Your task to perform on an android device: toggle improve location accuracy Image 0: 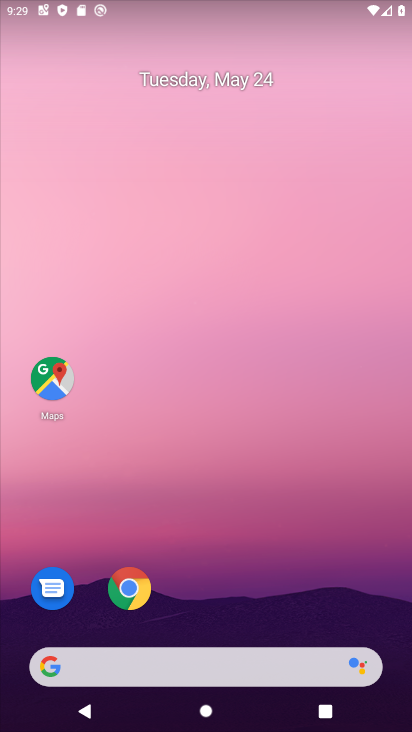
Step 0: drag from (257, 564) to (153, 15)
Your task to perform on an android device: toggle improve location accuracy Image 1: 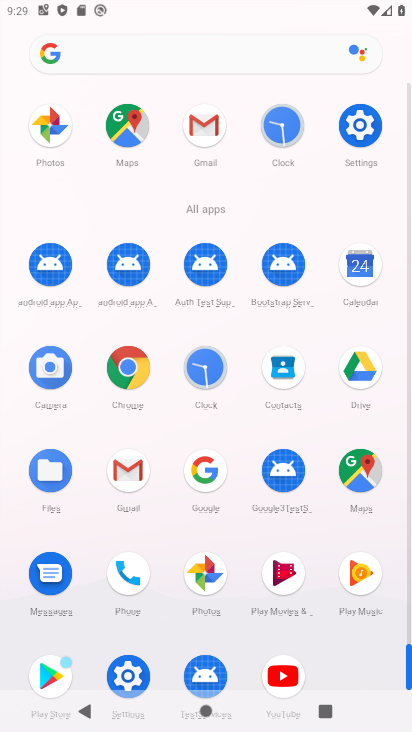
Step 1: drag from (13, 572) to (11, 227)
Your task to perform on an android device: toggle improve location accuracy Image 2: 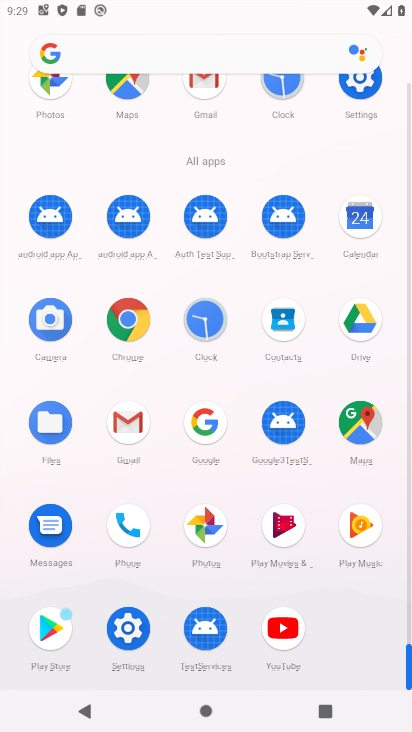
Step 2: click (127, 626)
Your task to perform on an android device: toggle improve location accuracy Image 3: 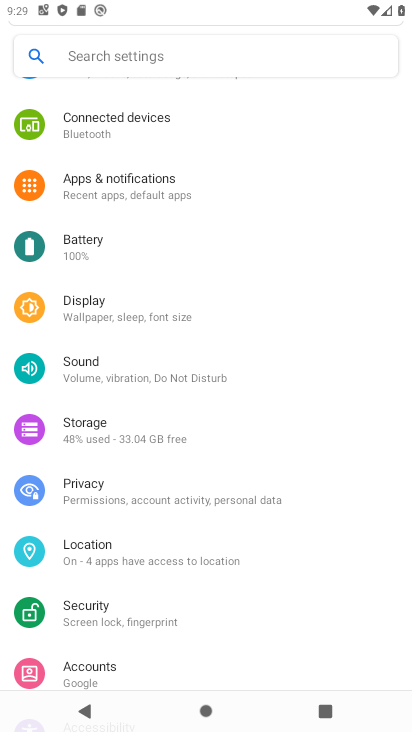
Step 3: click (119, 544)
Your task to perform on an android device: toggle improve location accuracy Image 4: 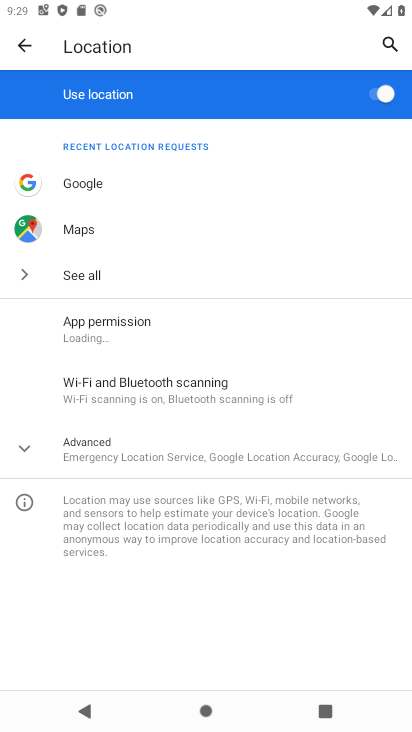
Step 4: click (21, 444)
Your task to perform on an android device: toggle improve location accuracy Image 5: 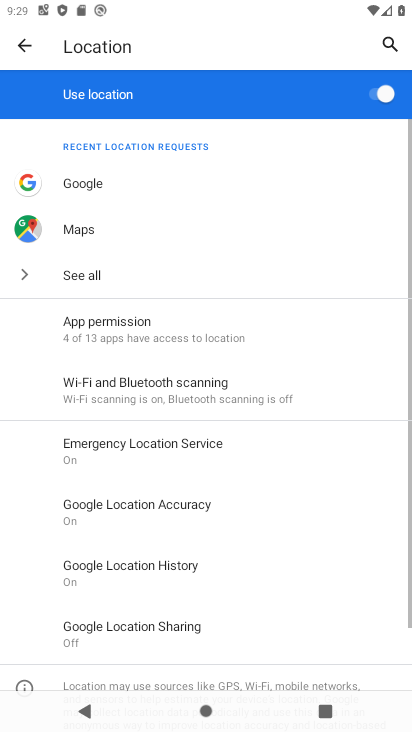
Step 5: click (195, 509)
Your task to perform on an android device: toggle improve location accuracy Image 6: 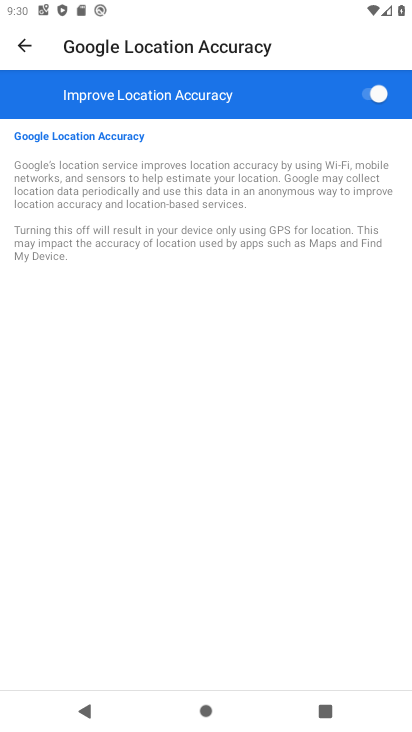
Step 6: click (368, 90)
Your task to perform on an android device: toggle improve location accuracy Image 7: 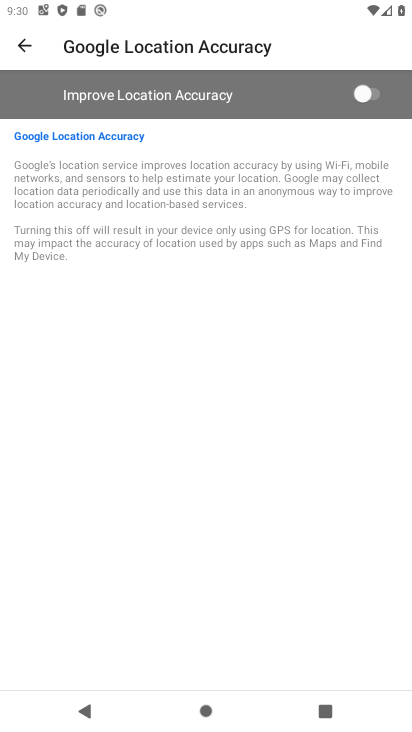
Step 7: task complete